Your task to perform on an android device: turn pop-ups on in chrome Image 0: 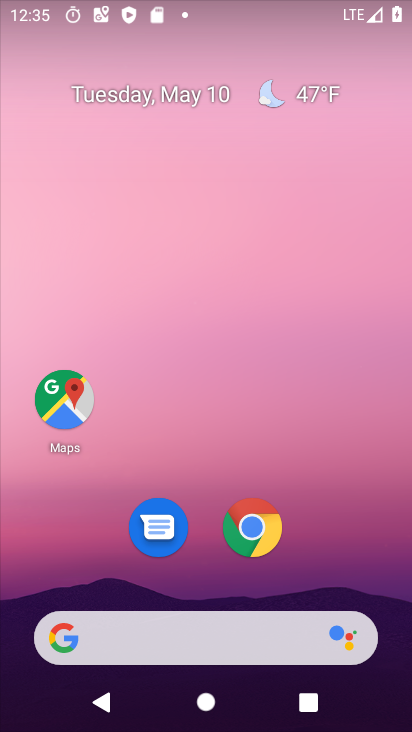
Step 0: drag from (373, 543) to (346, 90)
Your task to perform on an android device: turn pop-ups on in chrome Image 1: 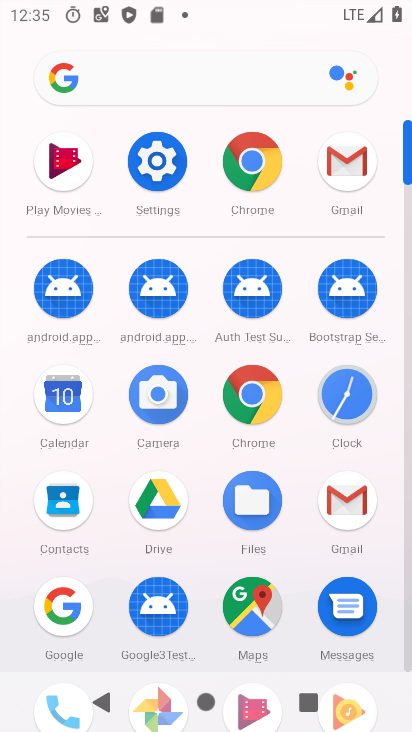
Step 1: click (265, 395)
Your task to perform on an android device: turn pop-ups on in chrome Image 2: 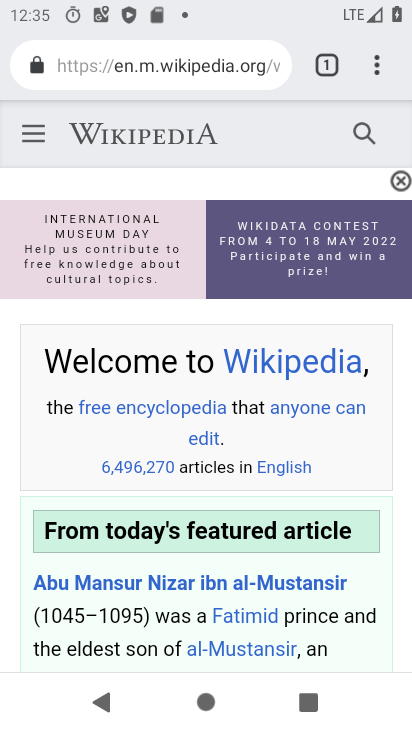
Step 2: drag from (382, 66) to (212, 581)
Your task to perform on an android device: turn pop-ups on in chrome Image 3: 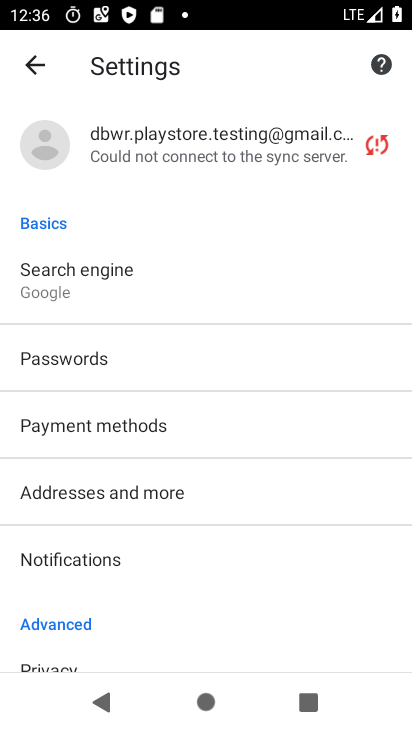
Step 3: drag from (230, 603) to (285, 336)
Your task to perform on an android device: turn pop-ups on in chrome Image 4: 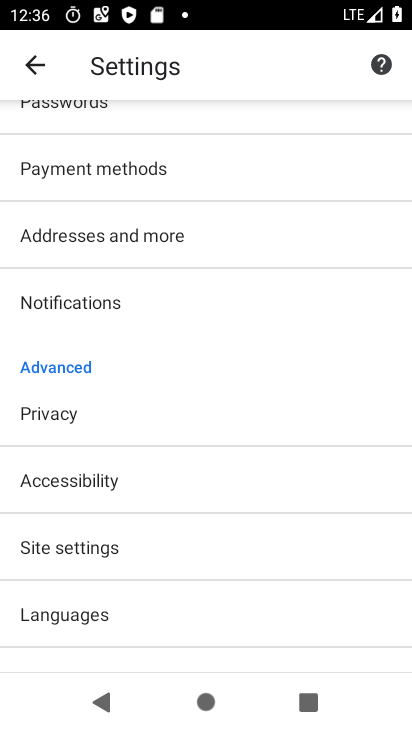
Step 4: drag from (286, 609) to (279, 317)
Your task to perform on an android device: turn pop-ups on in chrome Image 5: 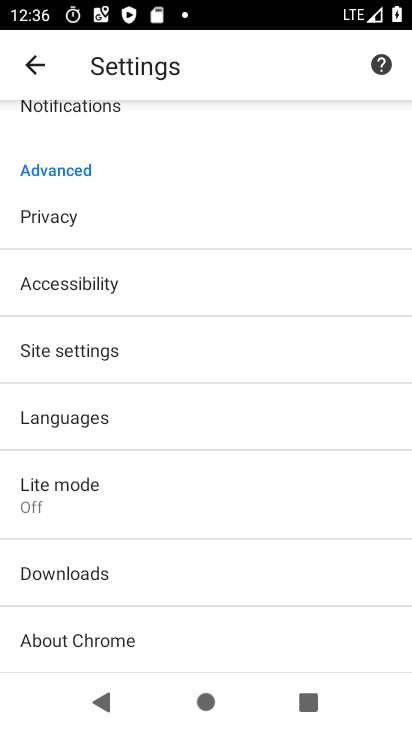
Step 5: click (133, 356)
Your task to perform on an android device: turn pop-ups on in chrome Image 6: 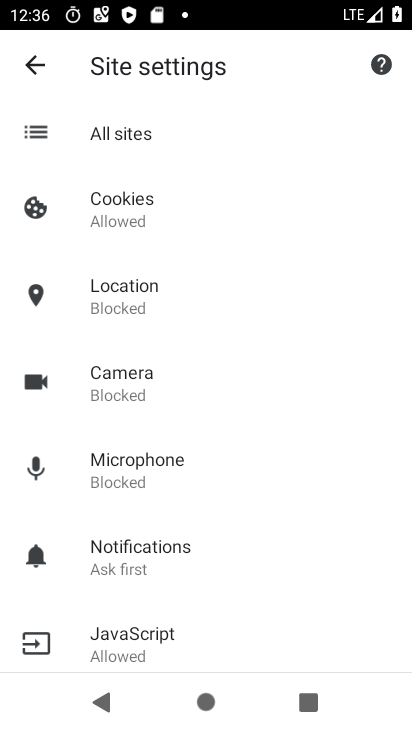
Step 6: drag from (221, 617) to (252, 315)
Your task to perform on an android device: turn pop-ups on in chrome Image 7: 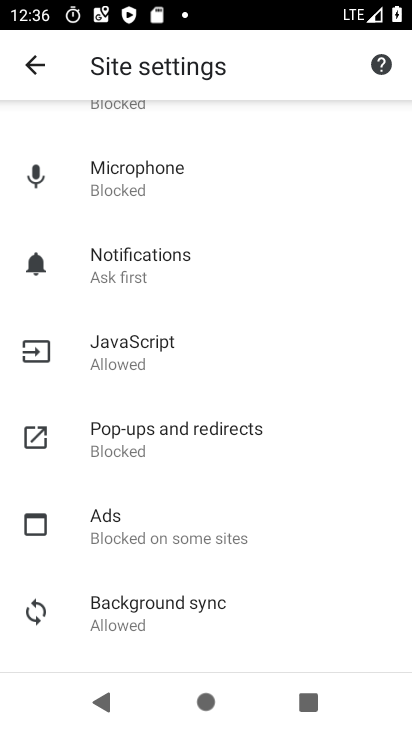
Step 7: click (251, 434)
Your task to perform on an android device: turn pop-ups on in chrome Image 8: 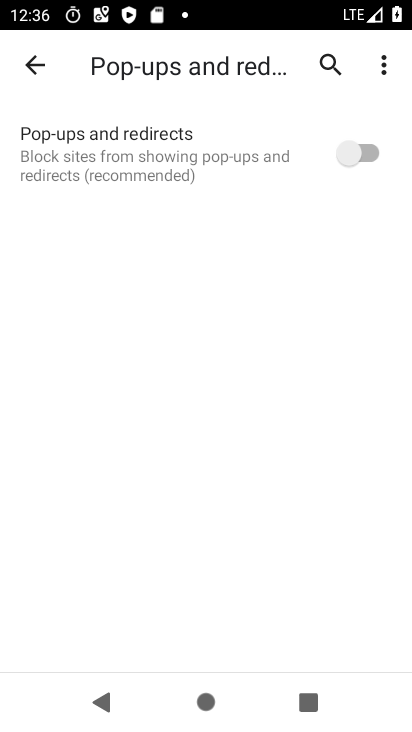
Step 8: click (371, 154)
Your task to perform on an android device: turn pop-ups on in chrome Image 9: 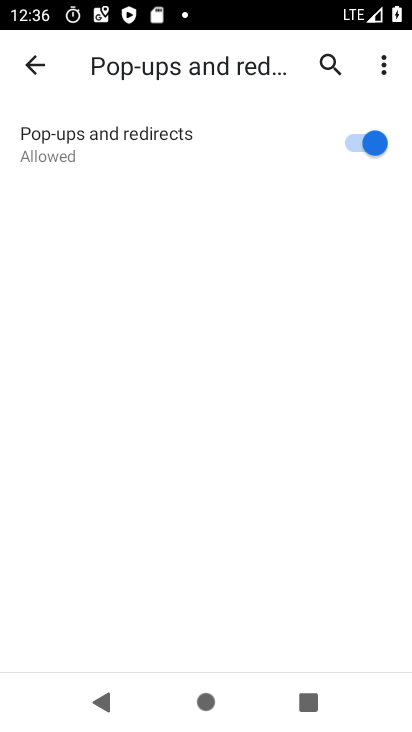
Step 9: task complete